Your task to perform on an android device: Open calendar and show me the second week of next month Image 0: 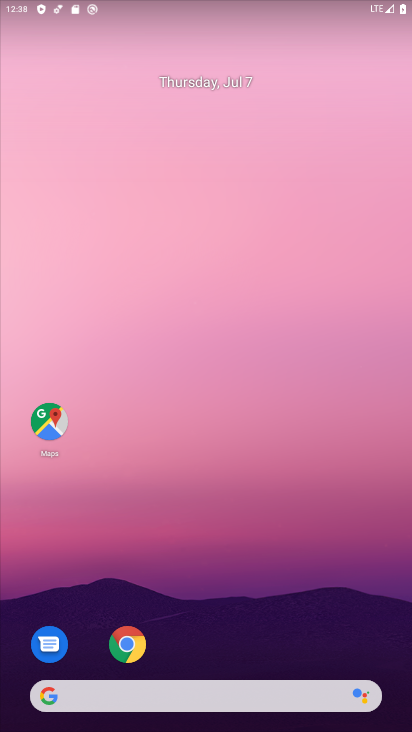
Step 0: drag from (396, 709) to (338, 94)
Your task to perform on an android device: Open calendar and show me the second week of next month Image 1: 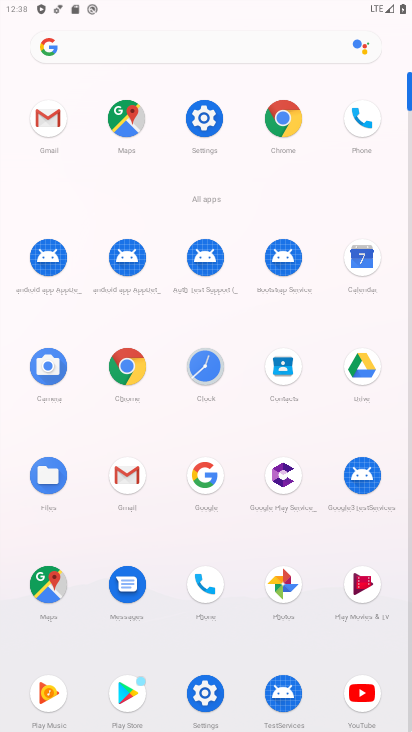
Step 1: click (362, 263)
Your task to perform on an android device: Open calendar and show me the second week of next month Image 2: 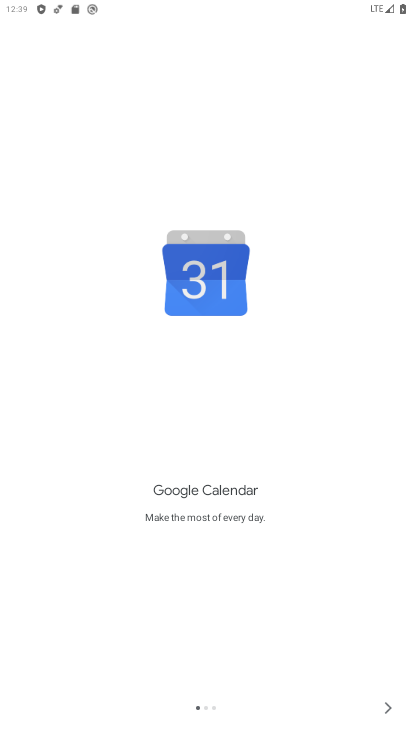
Step 2: click (368, 708)
Your task to perform on an android device: Open calendar and show me the second week of next month Image 3: 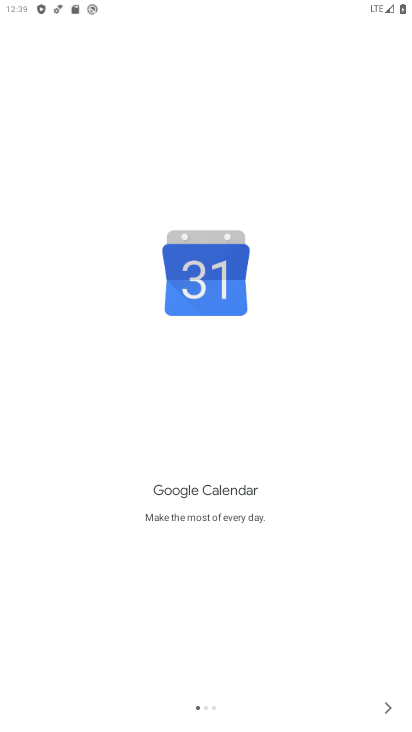
Step 3: click (391, 702)
Your task to perform on an android device: Open calendar and show me the second week of next month Image 4: 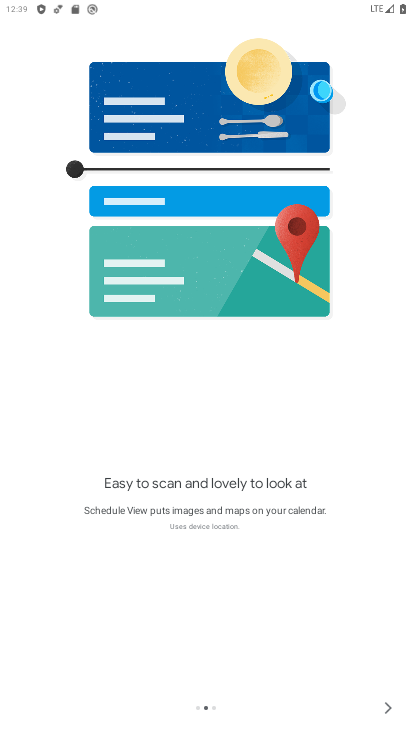
Step 4: click (391, 702)
Your task to perform on an android device: Open calendar and show me the second week of next month Image 5: 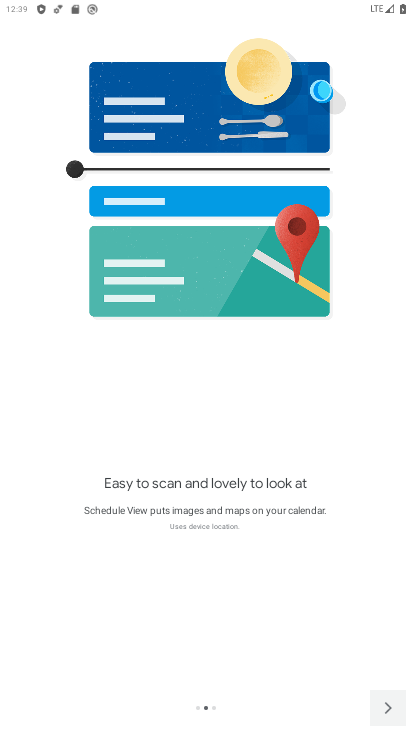
Step 5: click (391, 702)
Your task to perform on an android device: Open calendar and show me the second week of next month Image 6: 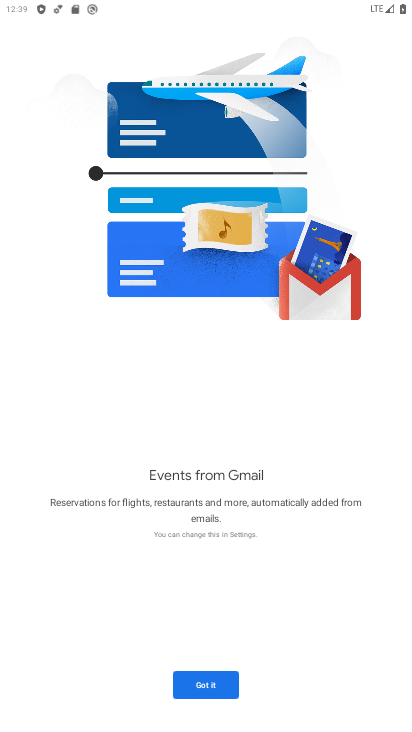
Step 6: click (201, 673)
Your task to perform on an android device: Open calendar and show me the second week of next month Image 7: 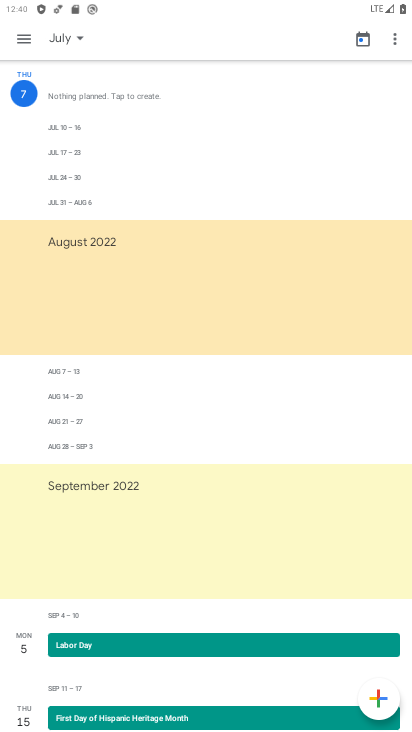
Step 7: click (82, 37)
Your task to perform on an android device: Open calendar and show me the second week of next month Image 8: 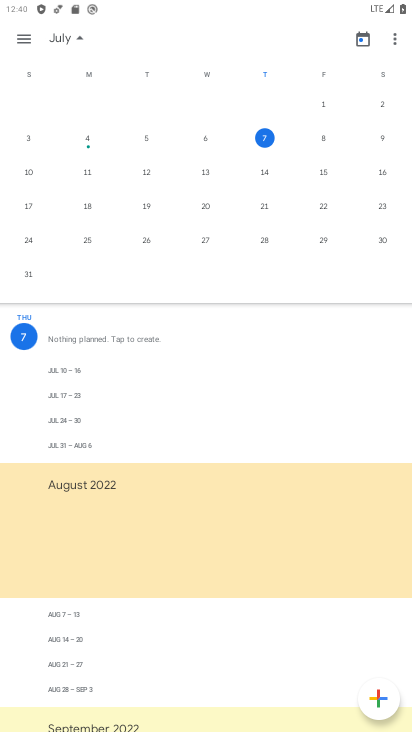
Step 8: drag from (394, 207) to (44, 170)
Your task to perform on an android device: Open calendar and show me the second week of next month Image 9: 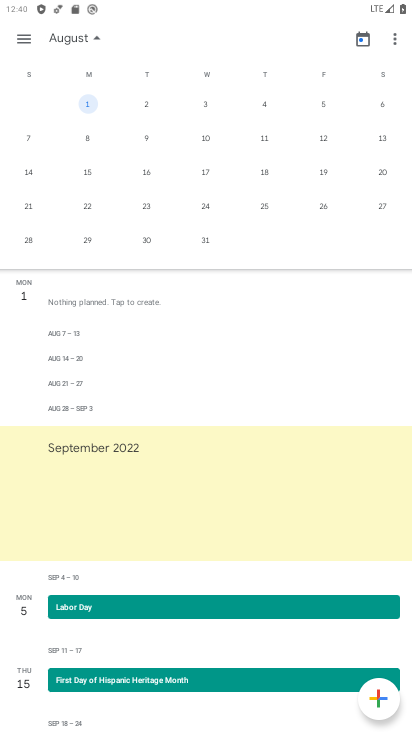
Step 9: click (205, 133)
Your task to perform on an android device: Open calendar and show me the second week of next month Image 10: 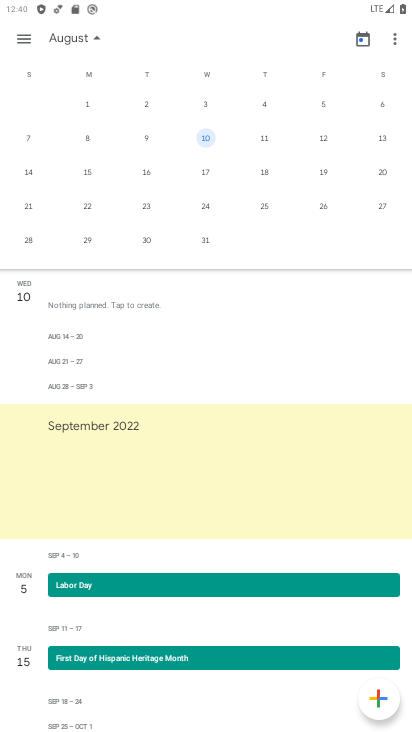
Step 10: task complete